Your task to perform on an android device: turn off picture-in-picture Image 0: 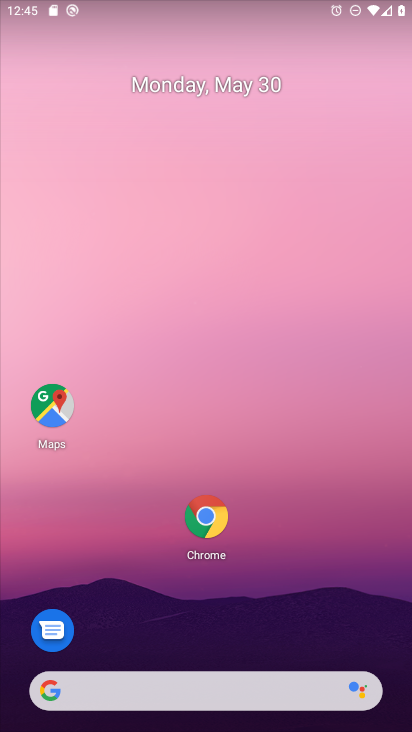
Step 0: press home button
Your task to perform on an android device: turn off picture-in-picture Image 1: 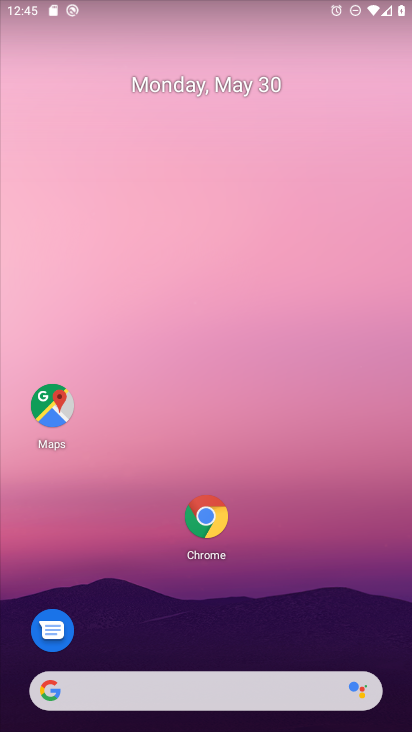
Step 1: click (209, 509)
Your task to perform on an android device: turn off picture-in-picture Image 2: 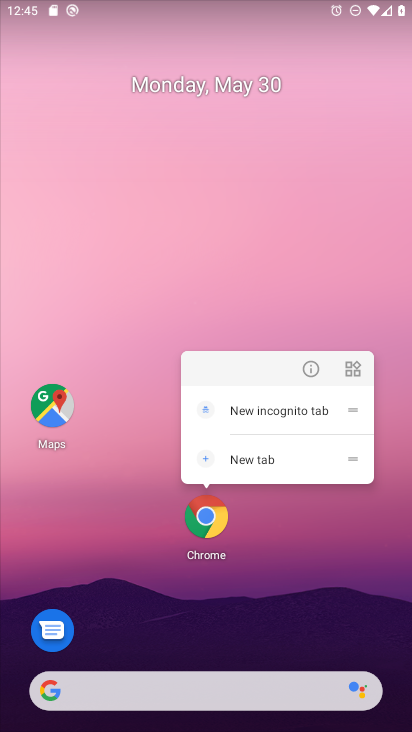
Step 2: click (302, 365)
Your task to perform on an android device: turn off picture-in-picture Image 3: 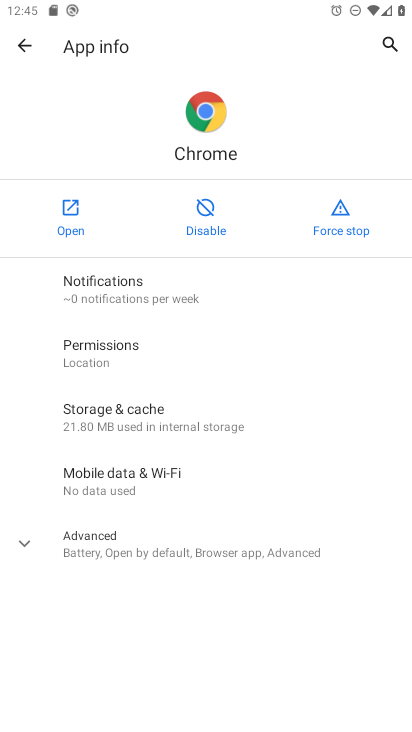
Step 3: click (118, 537)
Your task to perform on an android device: turn off picture-in-picture Image 4: 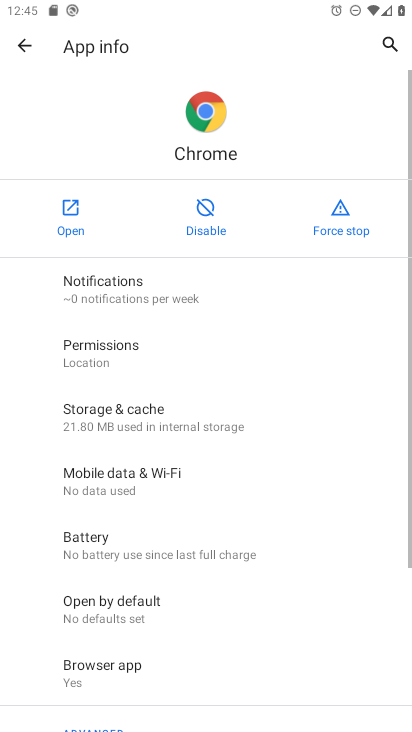
Step 4: drag from (218, 628) to (298, 59)
Your task to perform on an android device: turn off picture-in-picture Image 5: 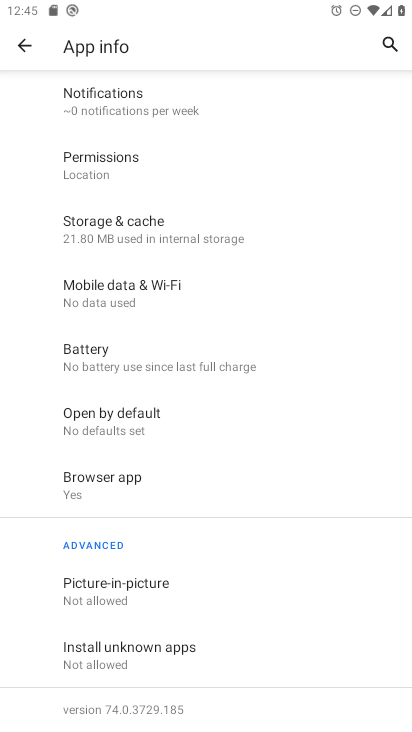
Step 5: click (127, 595)
Your task to perform on an android device: turn off picture-in-picture Image 6: 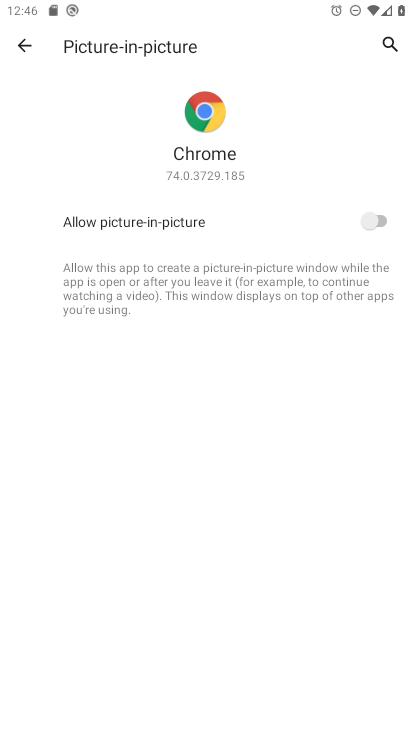
Step 6: task complete